Your task to perform on an android device: set an alarm Image 0: 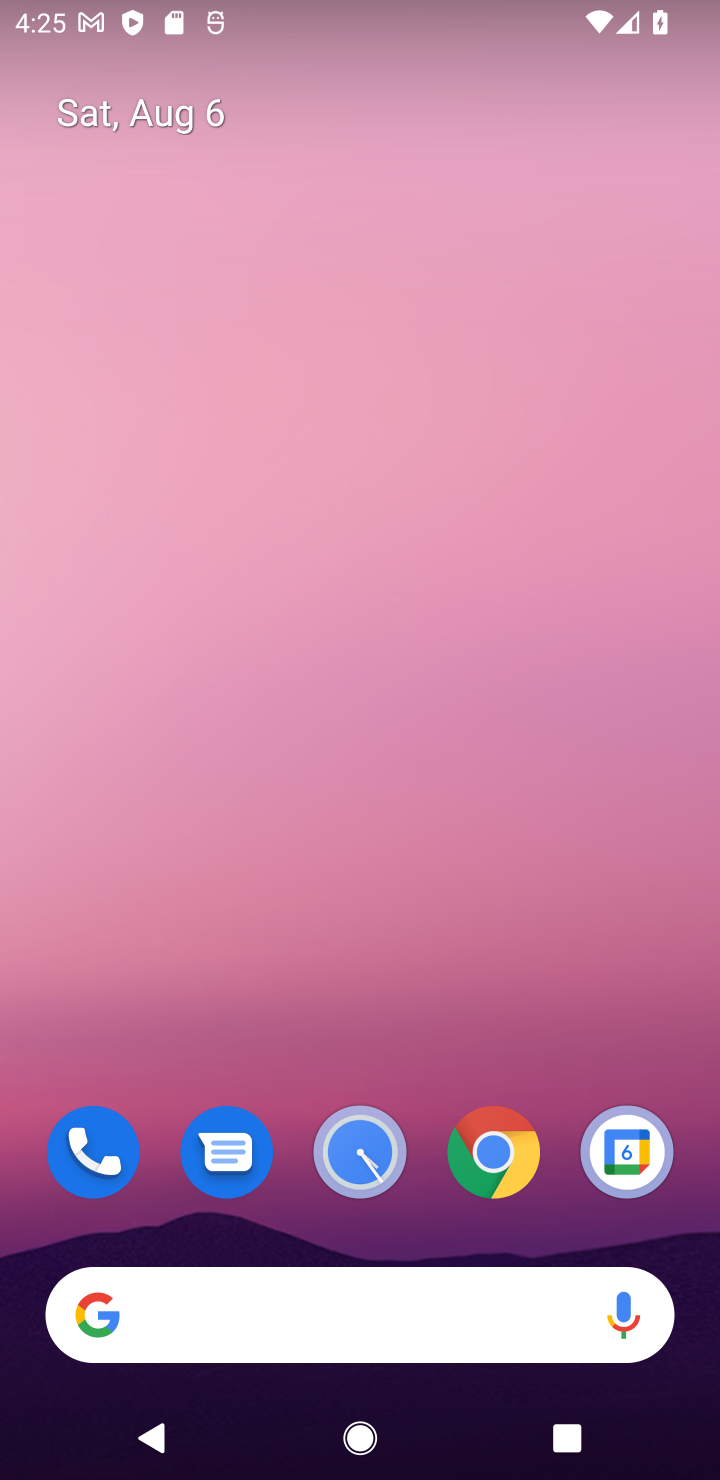
Step 0: drag from (419, 1198) to (447, 246)
Your task to perform on an android device: set an alarm Image 1: 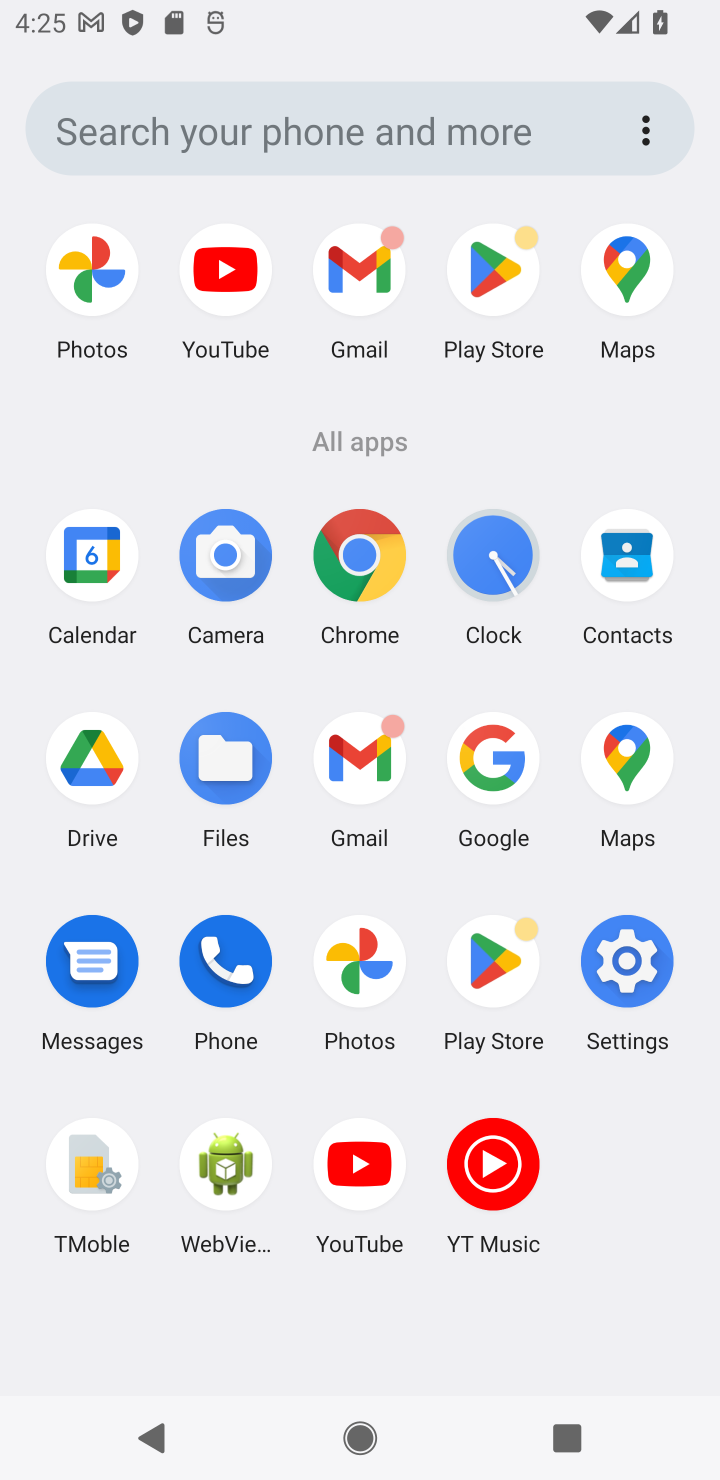
Step 1: click (498, 559)
Your task to perform on an android device: set an alarm Image 2: 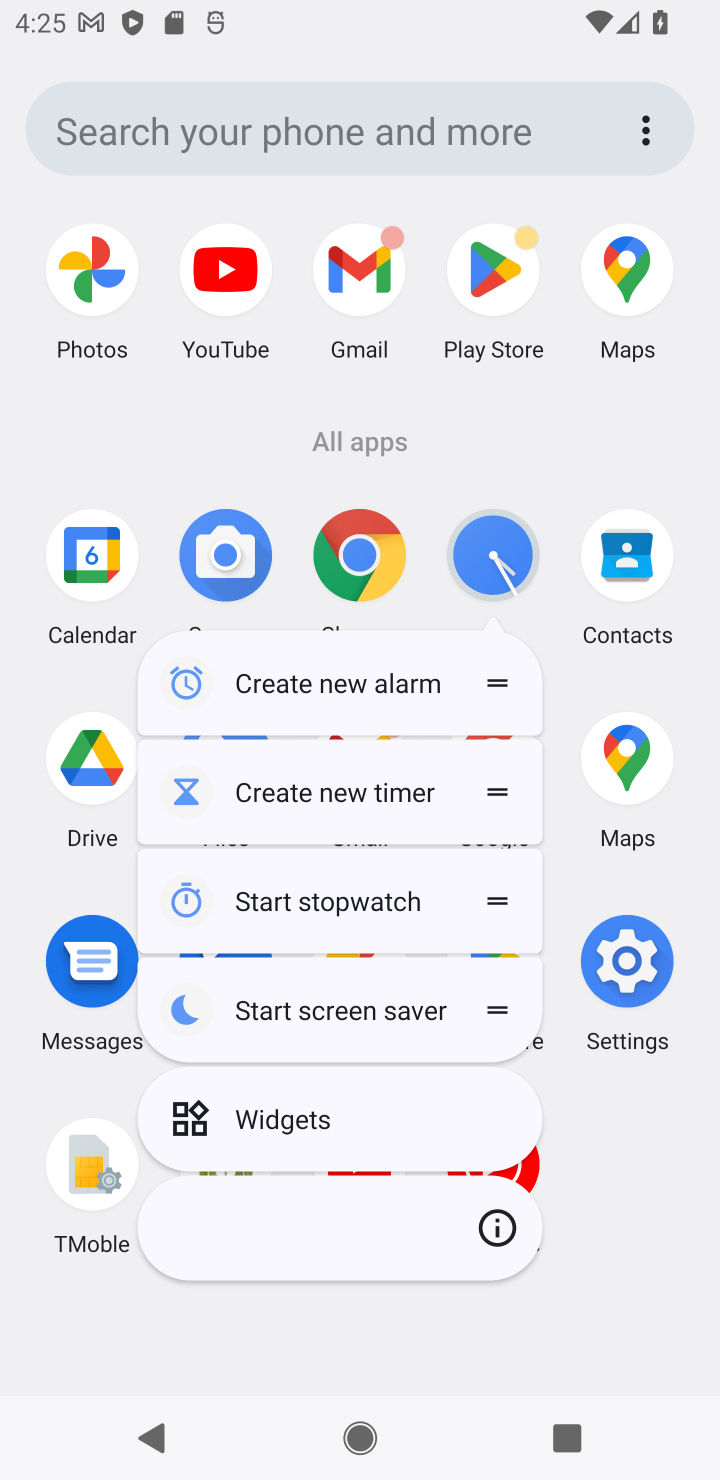
Step 2: click (498, 559)
Your task to perform on an android device: set an alarm Image 3: 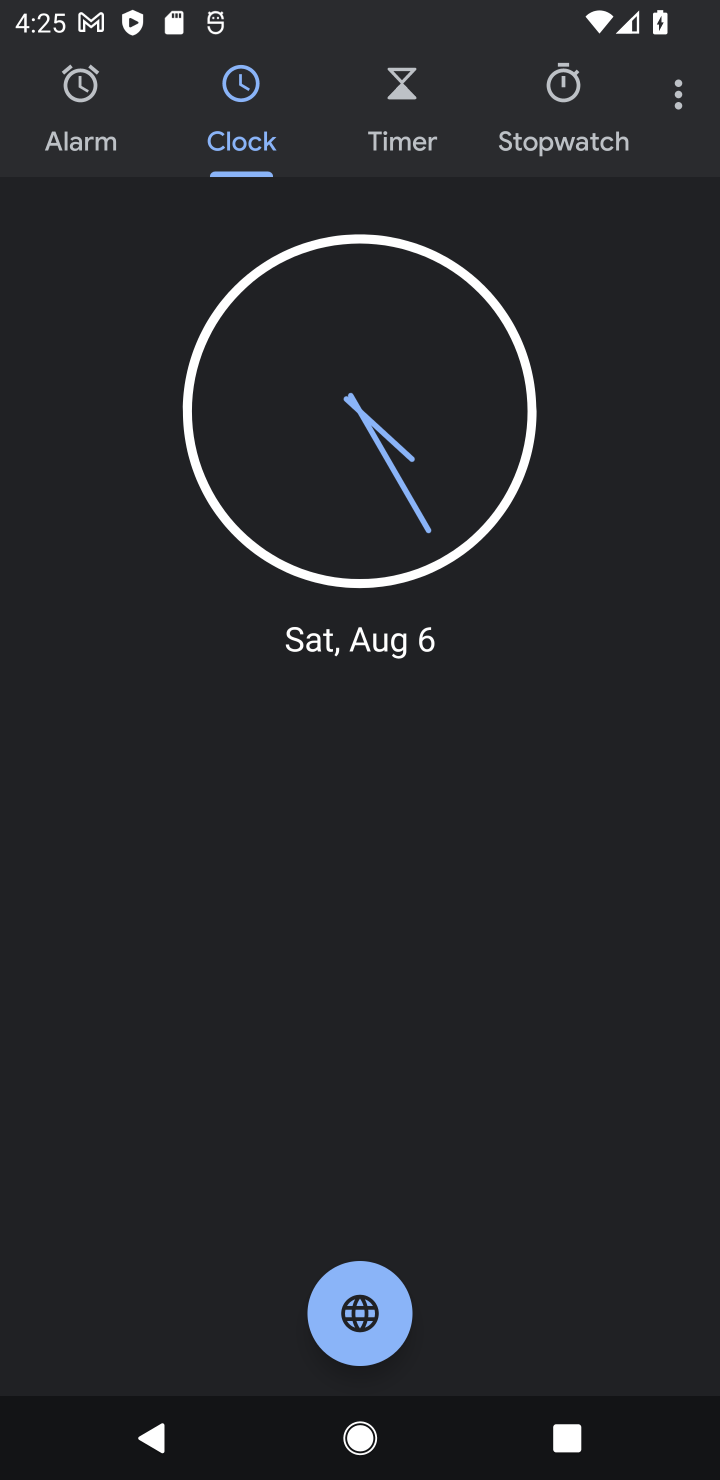
Step 3: click (116, 98)
Your task to perform on an android device: set an alarm Image 4: 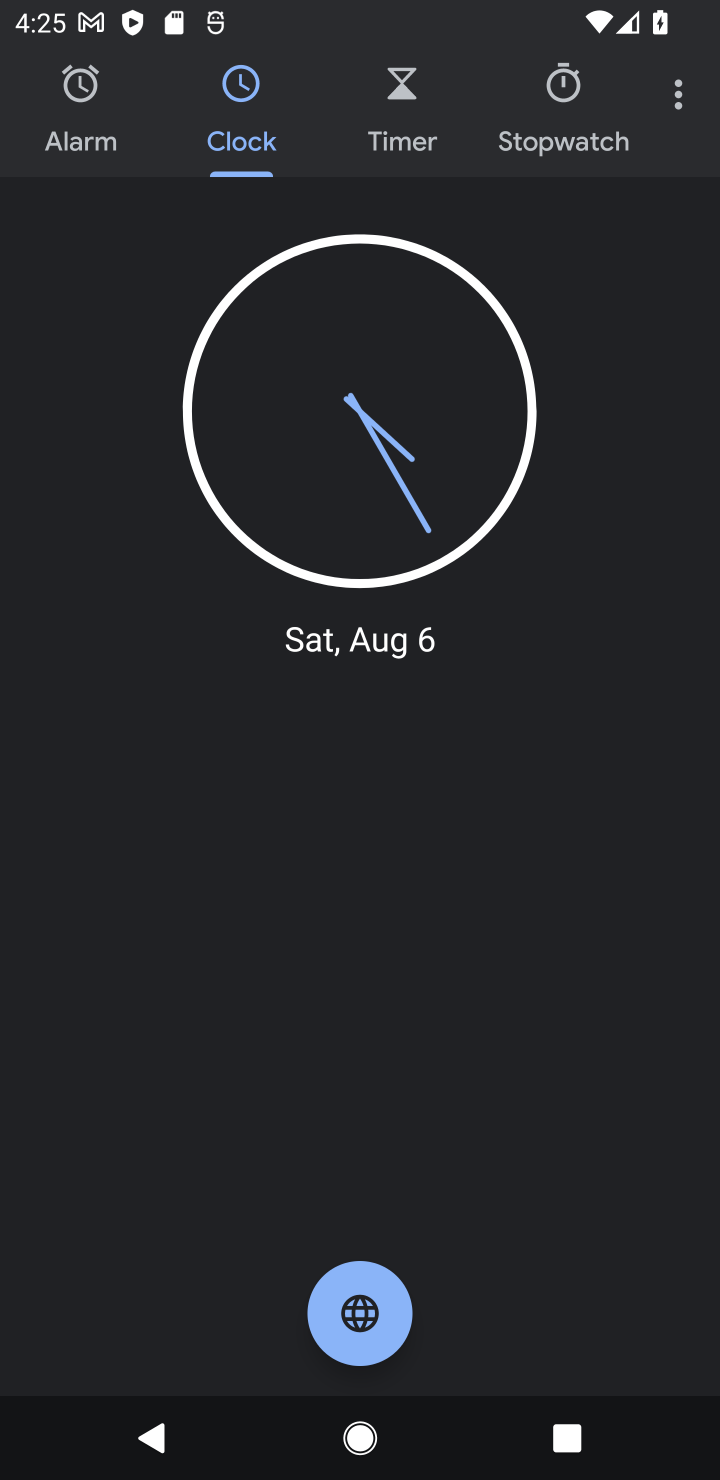
Step 4: click (105, 103)
Your task to perform on an android device: set an alarm Image 5: 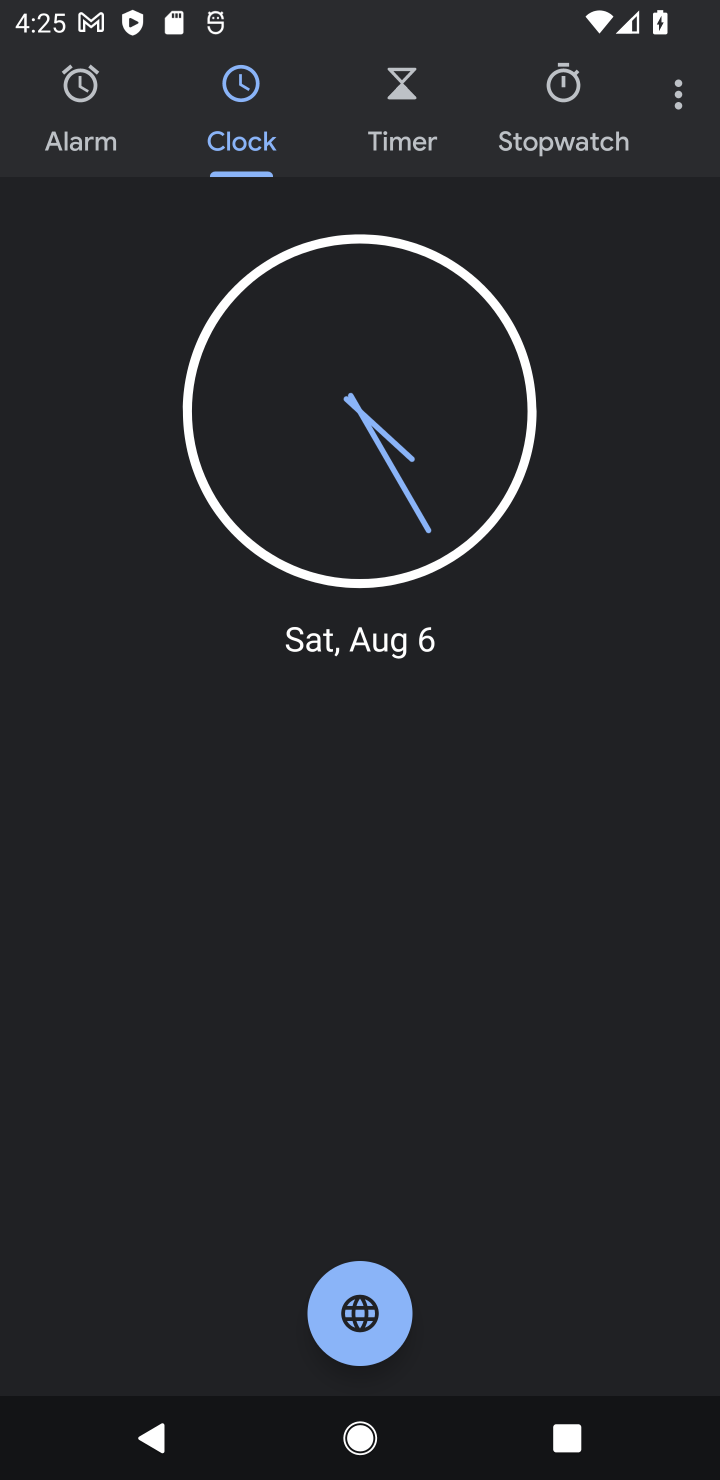
Step 5: click (97, 128)
Your task to perform on an android device: set an alarm Image 6: 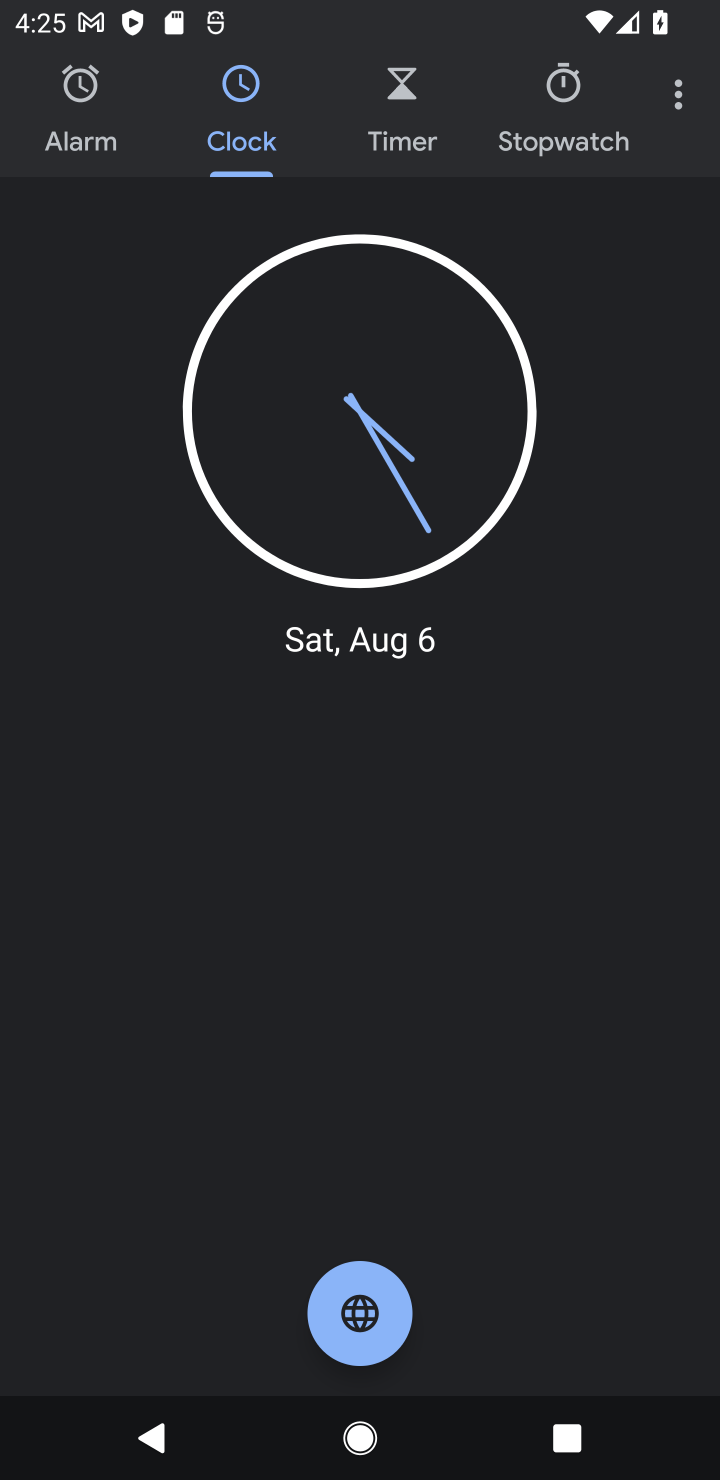
Step 6: click (334, 1198)
Your task to perform on an android device: set an alarm Image 7: 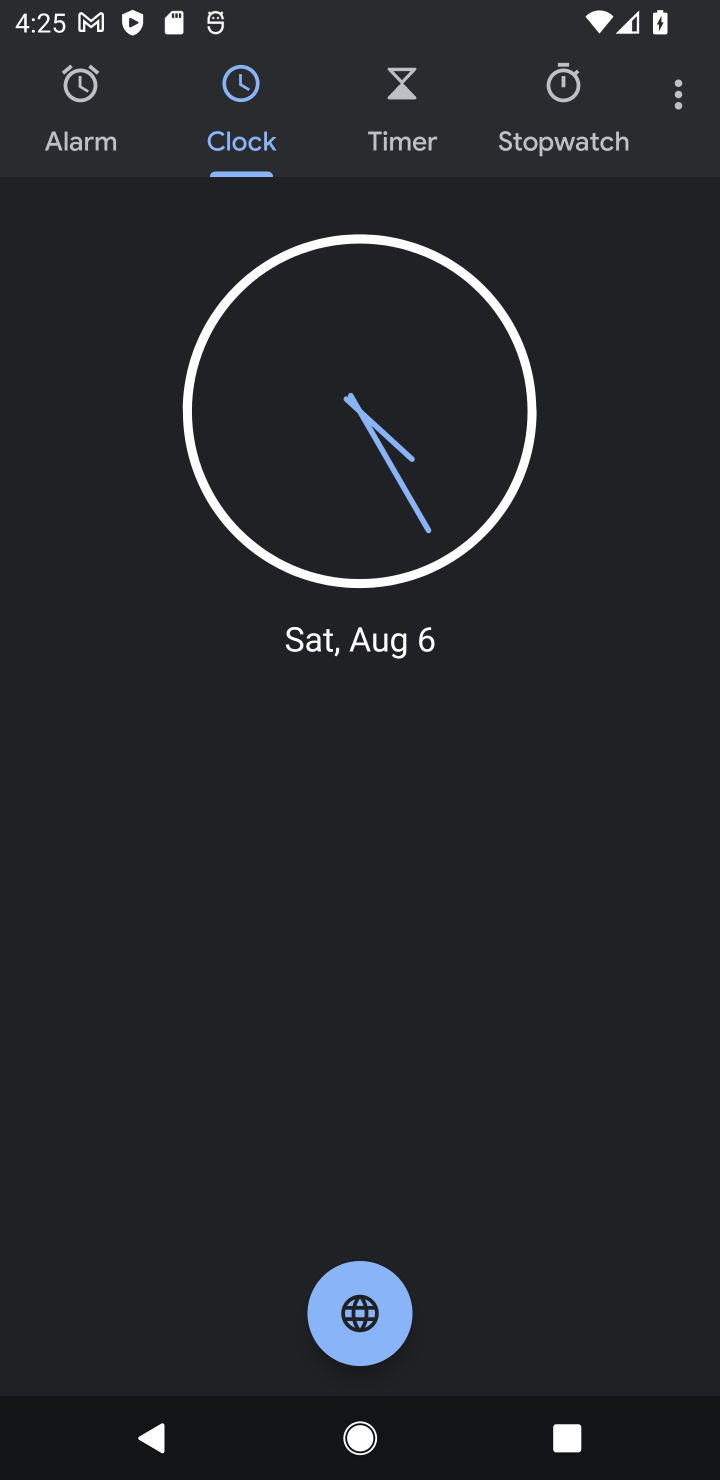
Step 7: click (0, 514)
Your task to perform on an android device: set an alarm Image 8: 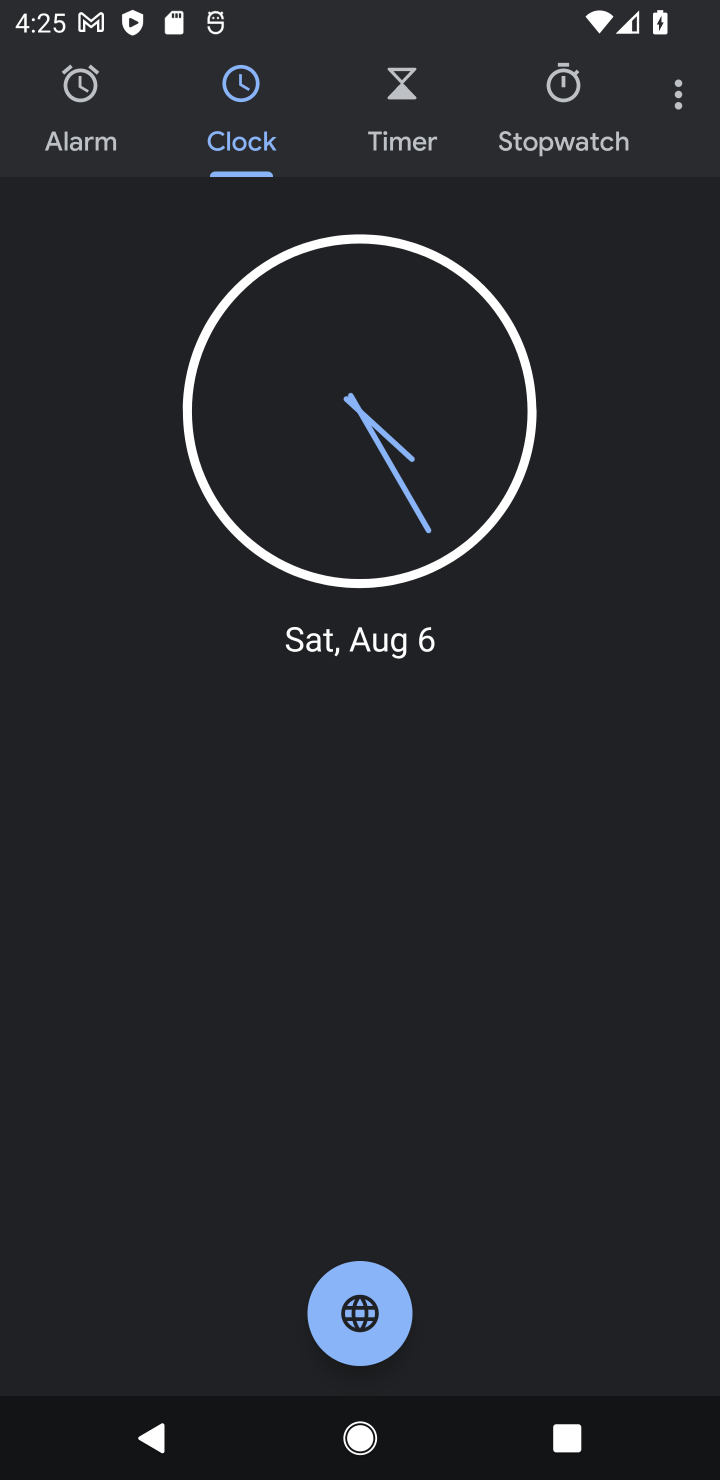
Step 8: click (119, 98)
Your task to perform on an android device: set an alarm Image 9: 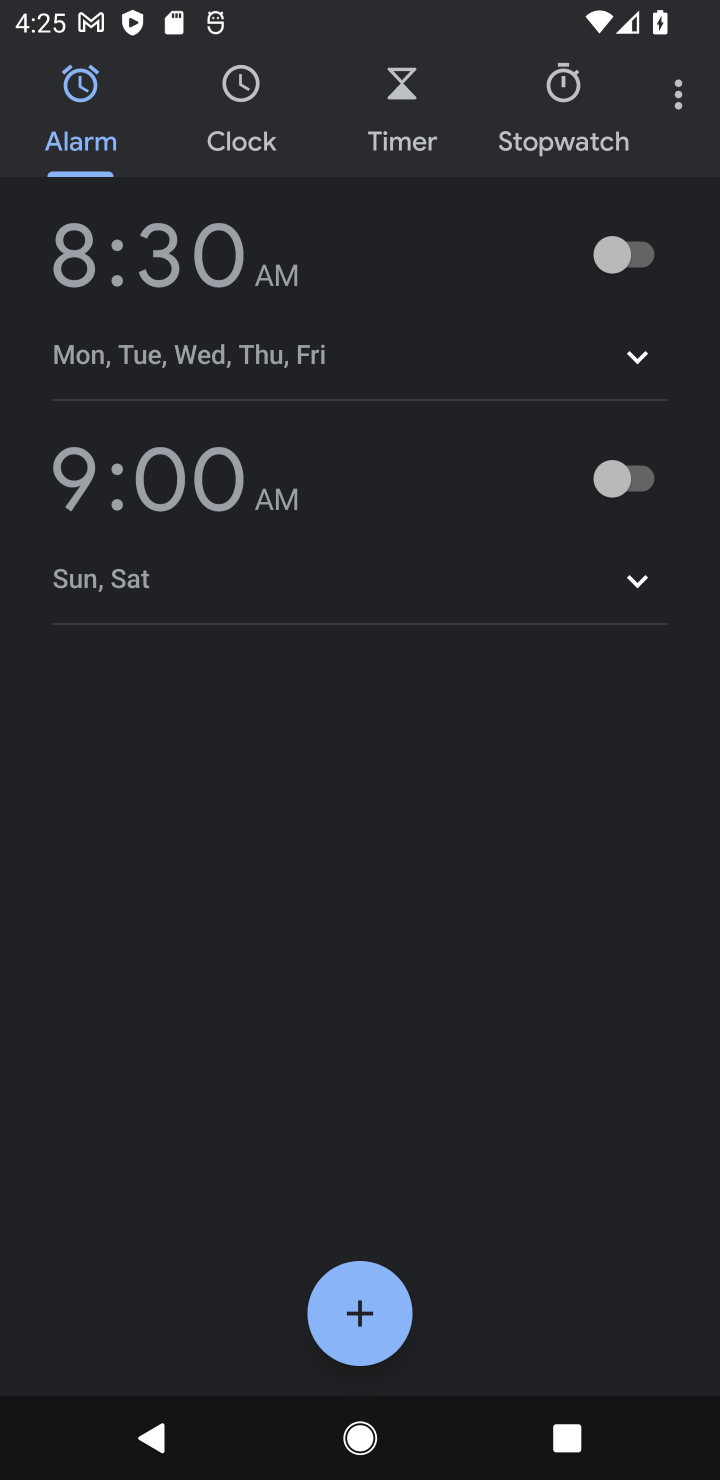
Step 9: click (390, 1293)
Your task to perform on an android device: set an alarm Image 10: 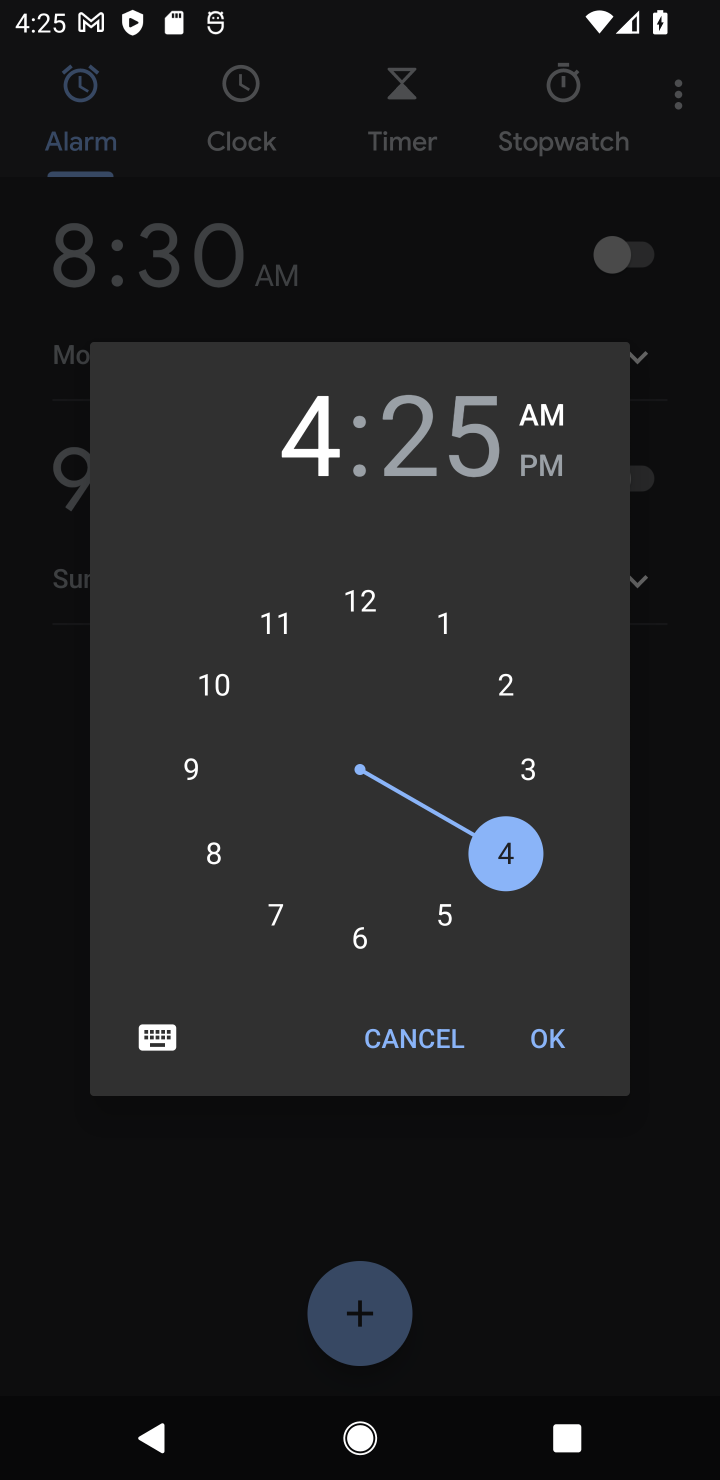
Step 10: click (529, 1040)
Your task to perform on an android device: set an alarm Image 11: 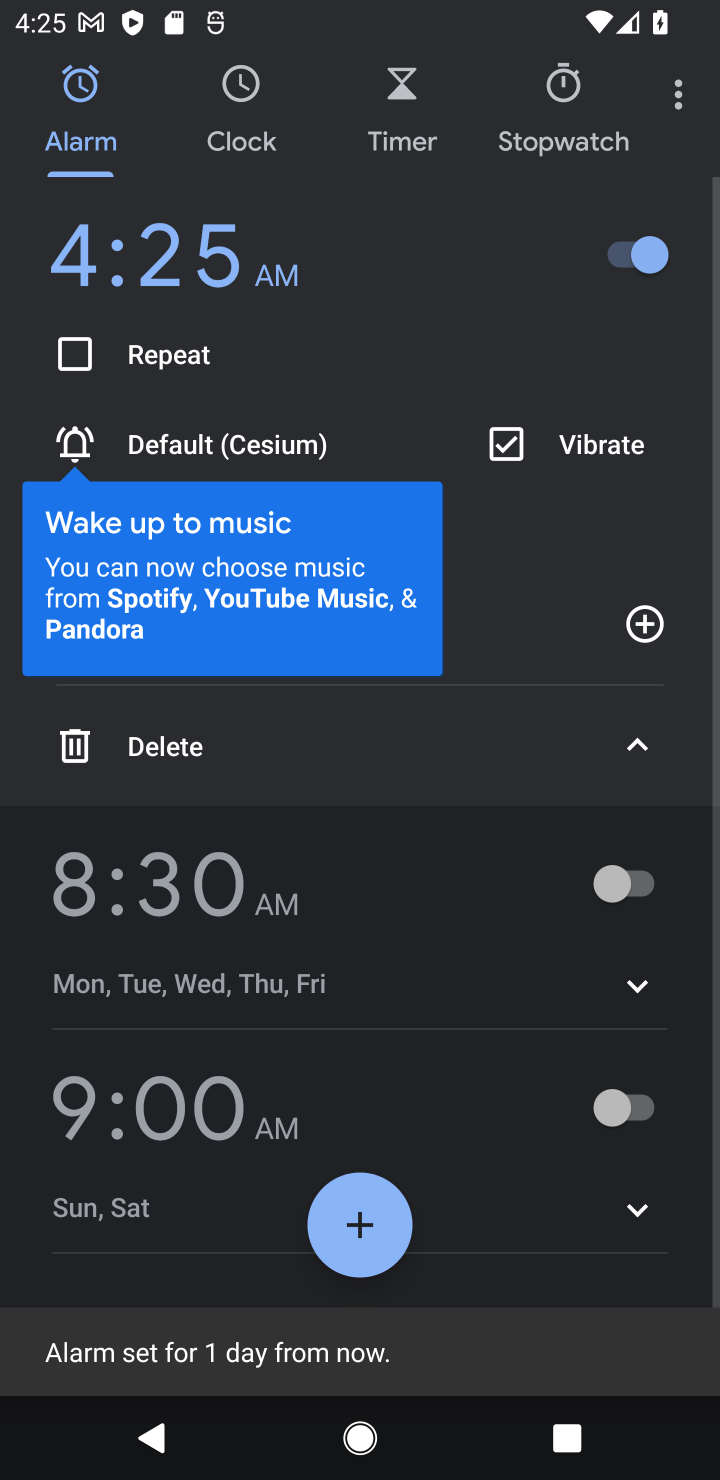
Step 11: task complete